Your task to perform on an android device: install app "Airtel Thanks" Image 0: 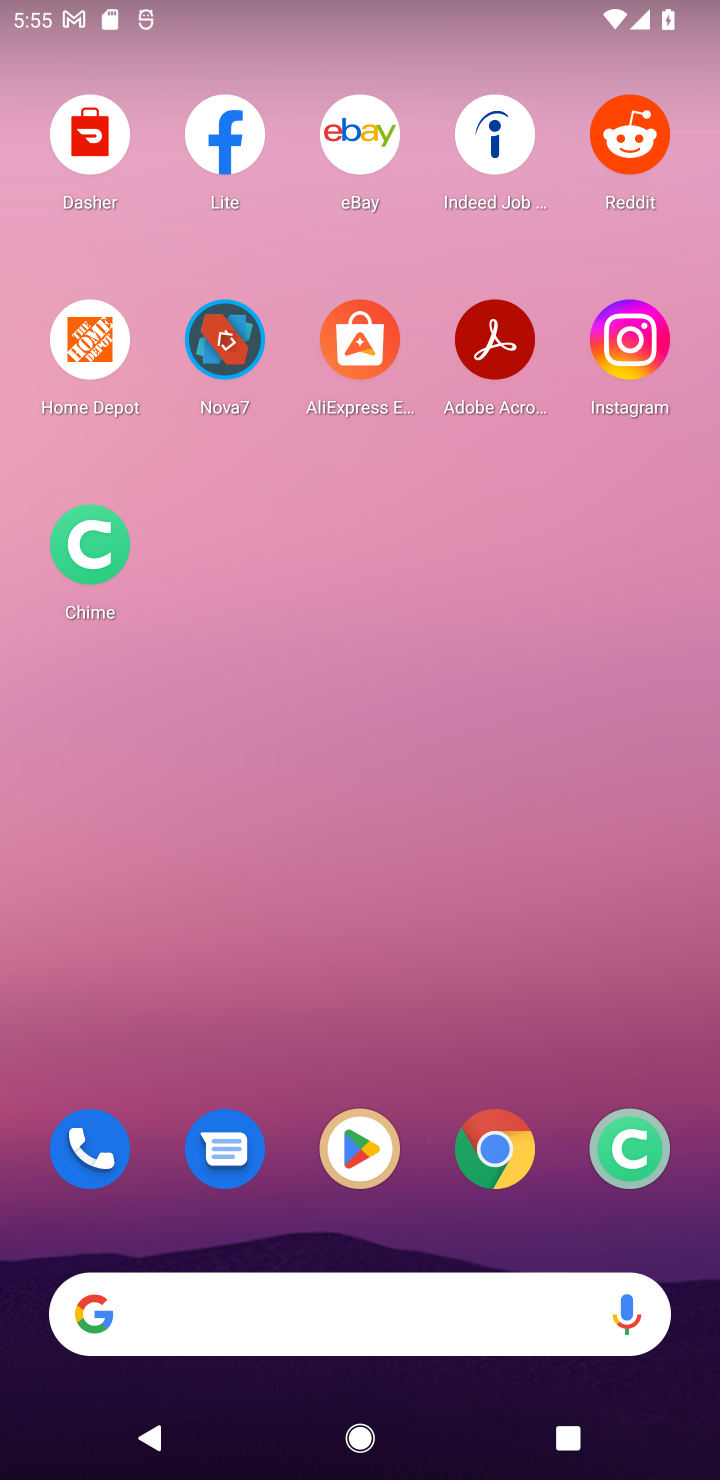
Step 0: press home button
Your task to perform on an android device: install app "Airtel Thanks" Image 1: 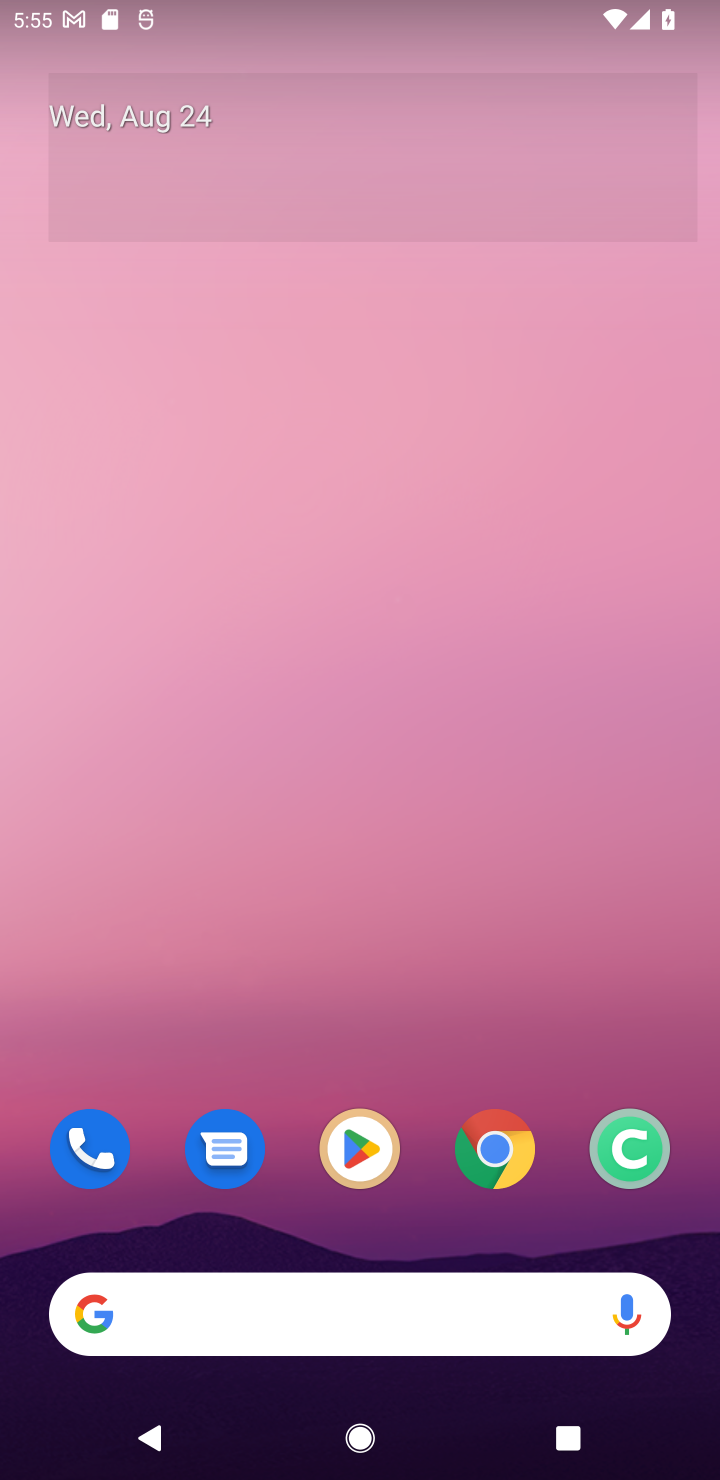
Step 1: click (352, 1149)
Your task to perform on an android device: install app "Airtel Thanks" Image 2: 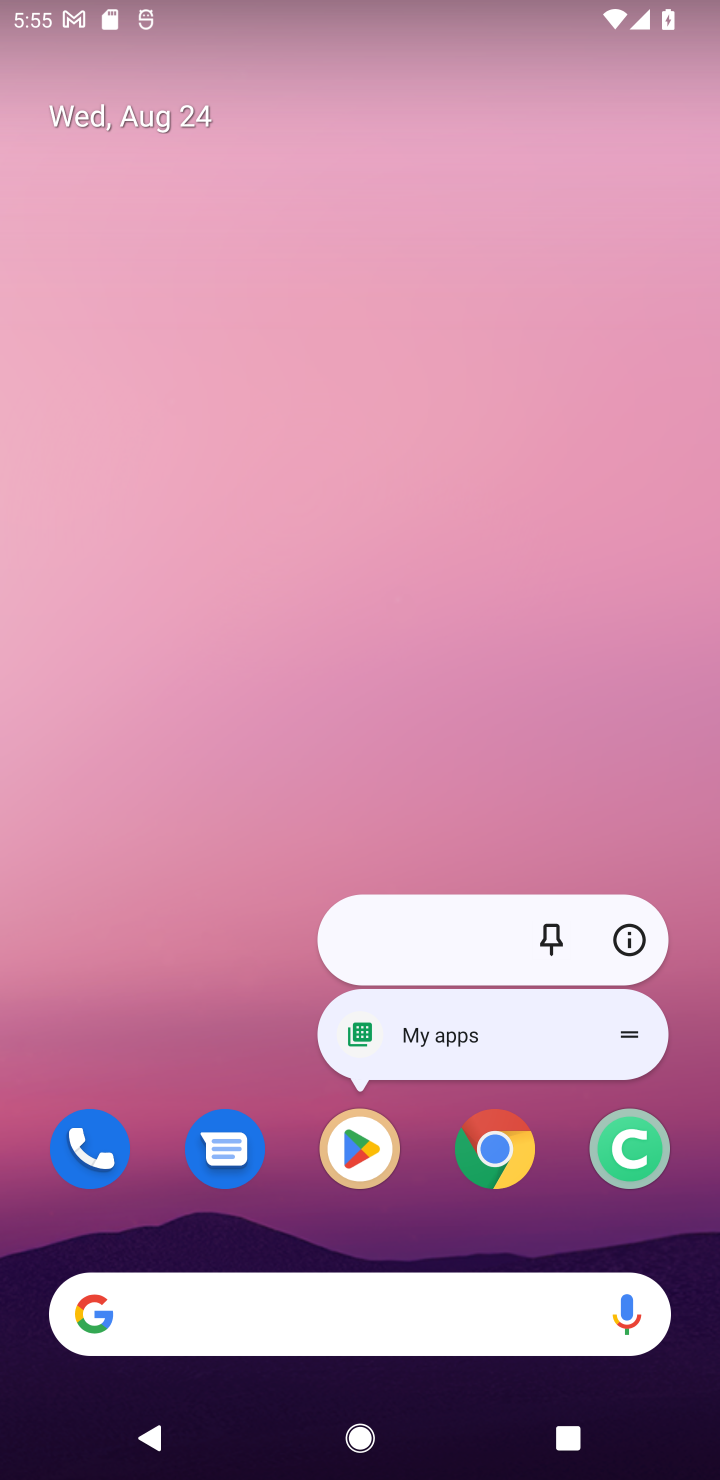
Step 2: click (352, 1151)
Your task to perform on an android device: install app "Airtel Thanks" Image 3: 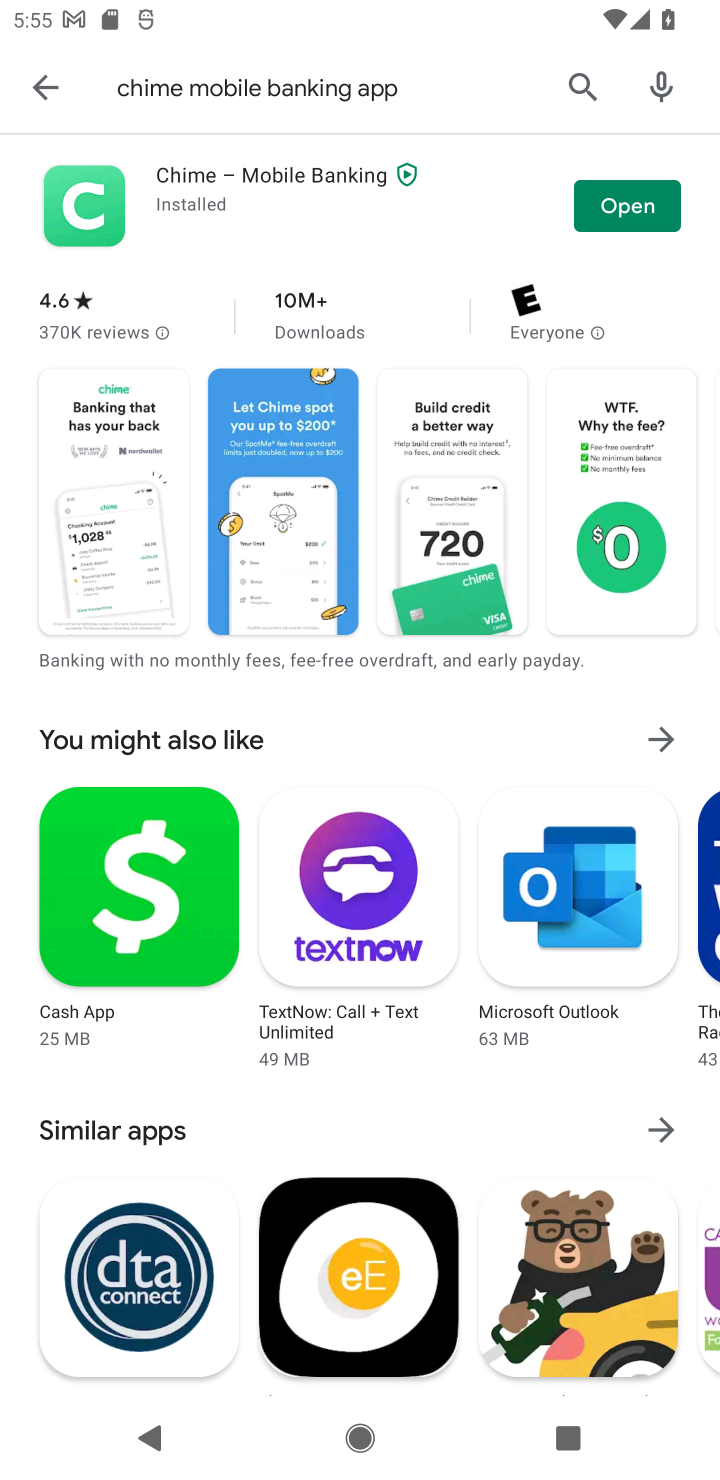
Step 3: click (568, 88)
Your task to perform on an android device: install app "Airtel Thanks" Image 4: 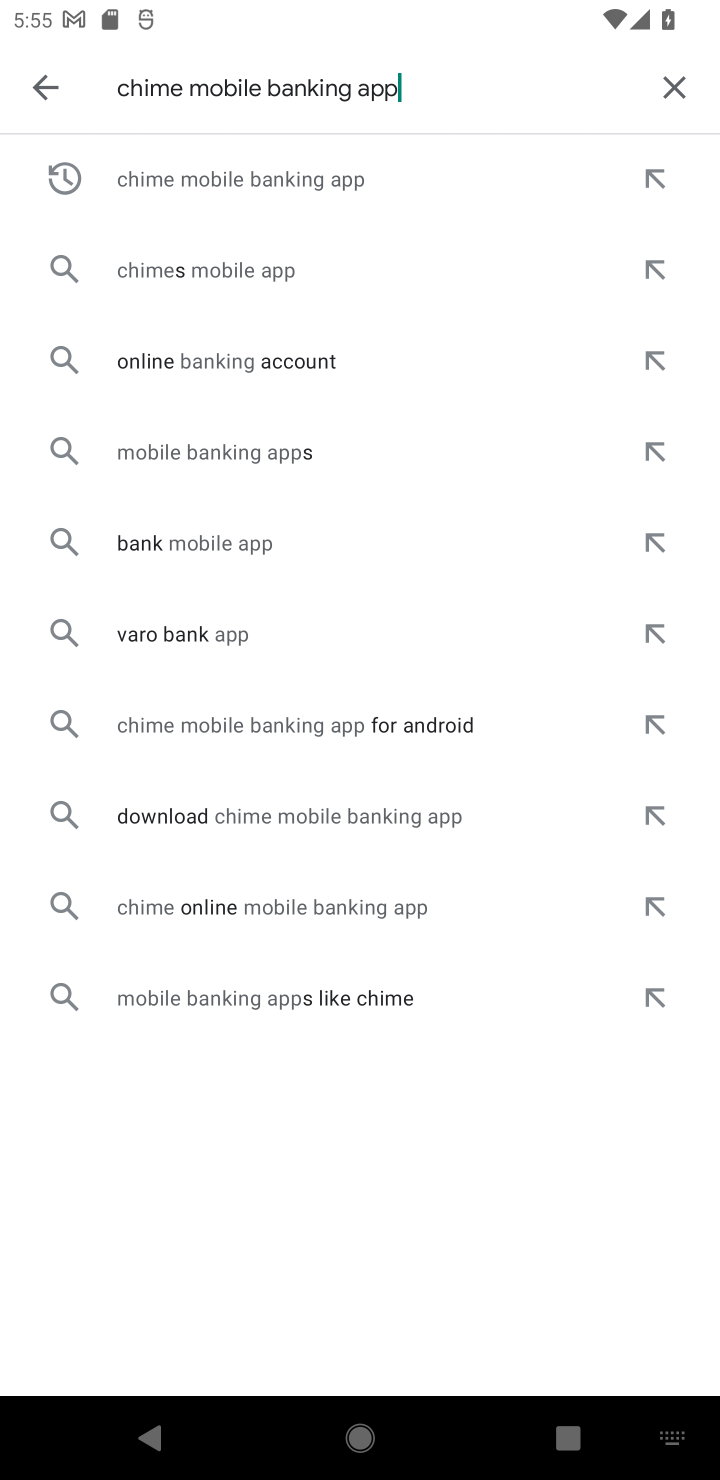
Step 4: click (667, 82)
Your task to perform on an android device: install app "Airtel Thanks" Image 5: 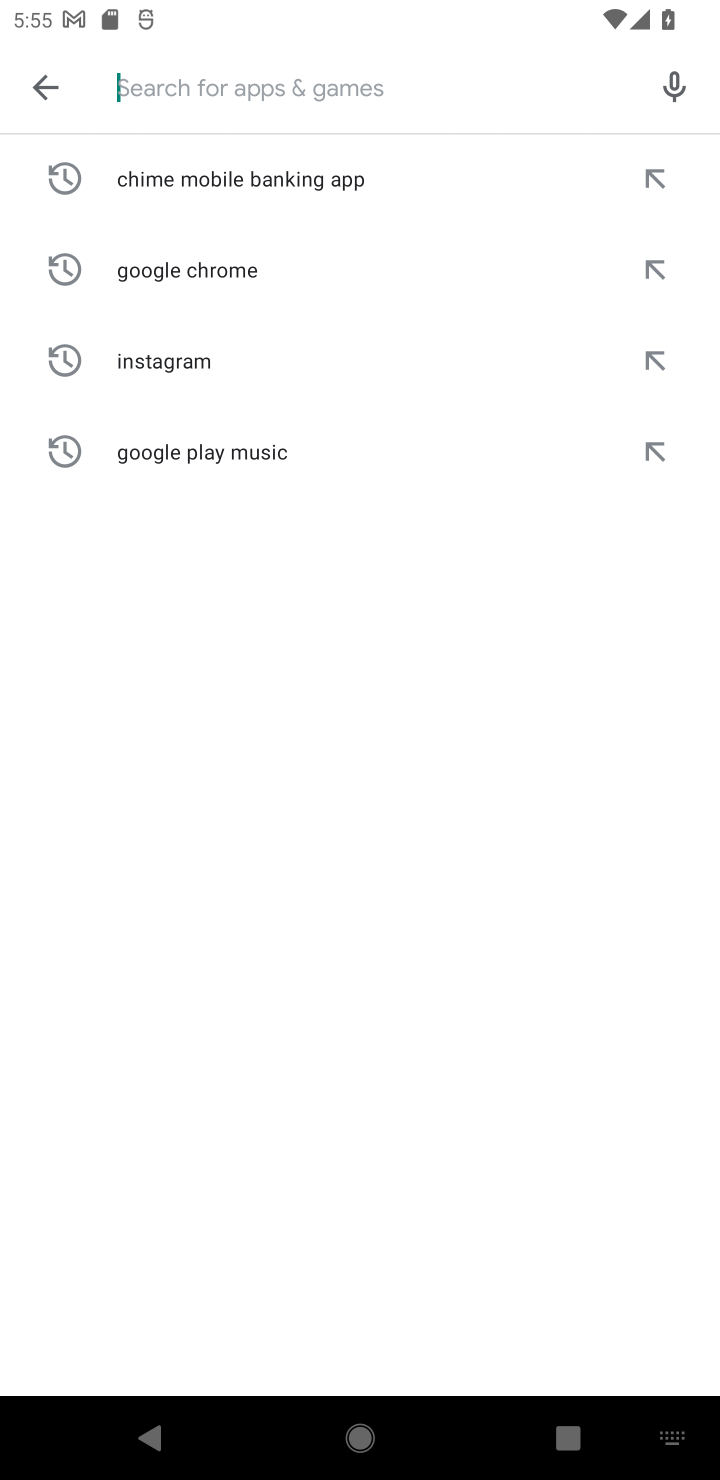
Step 5: type "Airtel Thanks"
Your task to perform on an android device: install app "Airtel Thanks" Image 6: 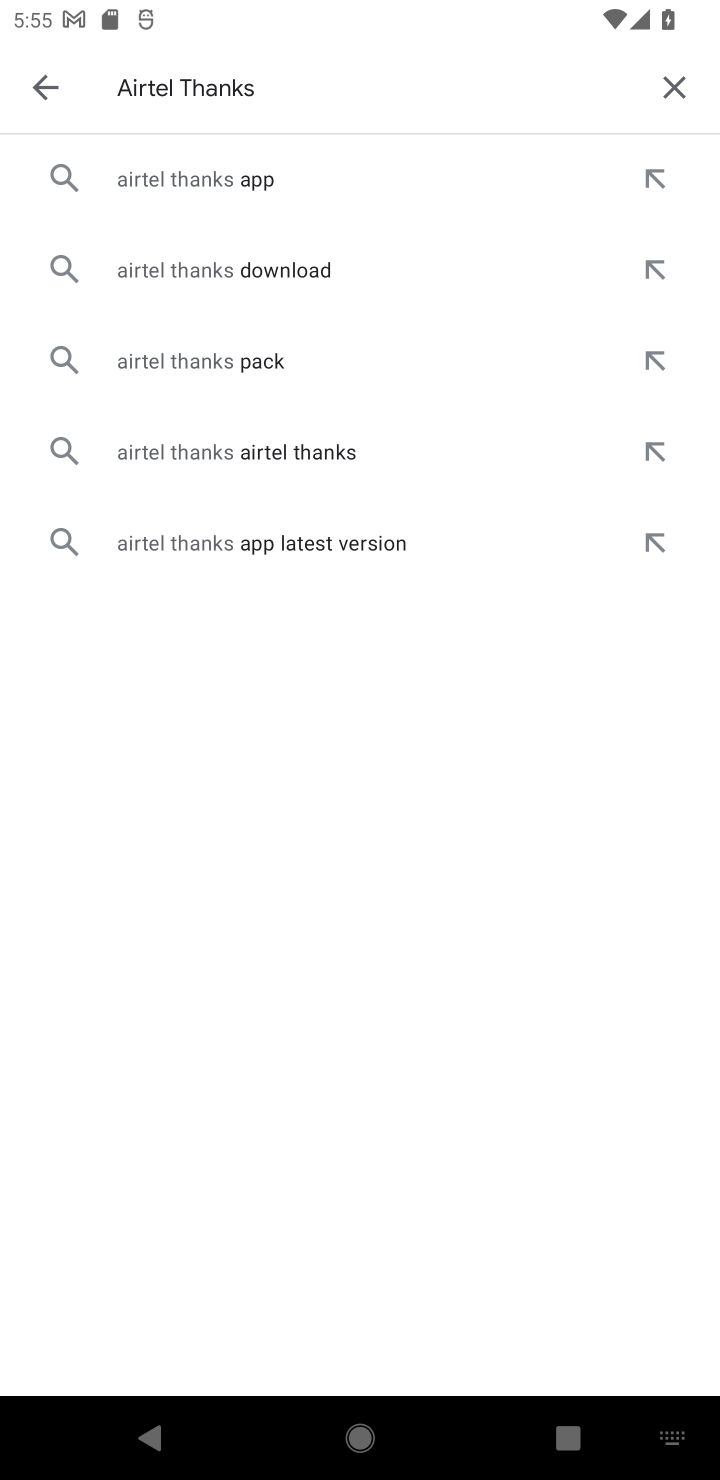
Step 6: click (249, 172)
Your task to perform on an android device: install app "Airtel Thanks" Image 7: 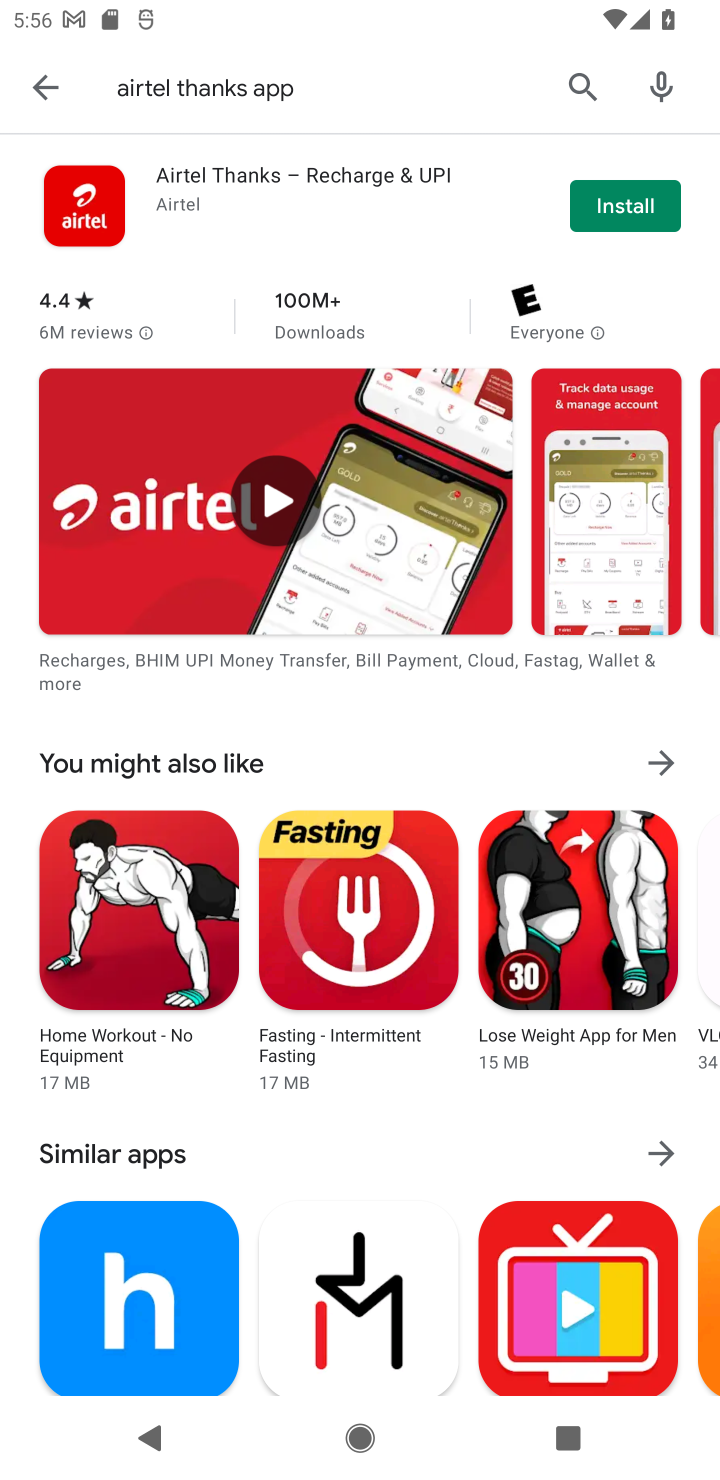
Step 7: click (632, 203)
Your task to perform on an android device: install app "Airtel Thanks" Image 8: 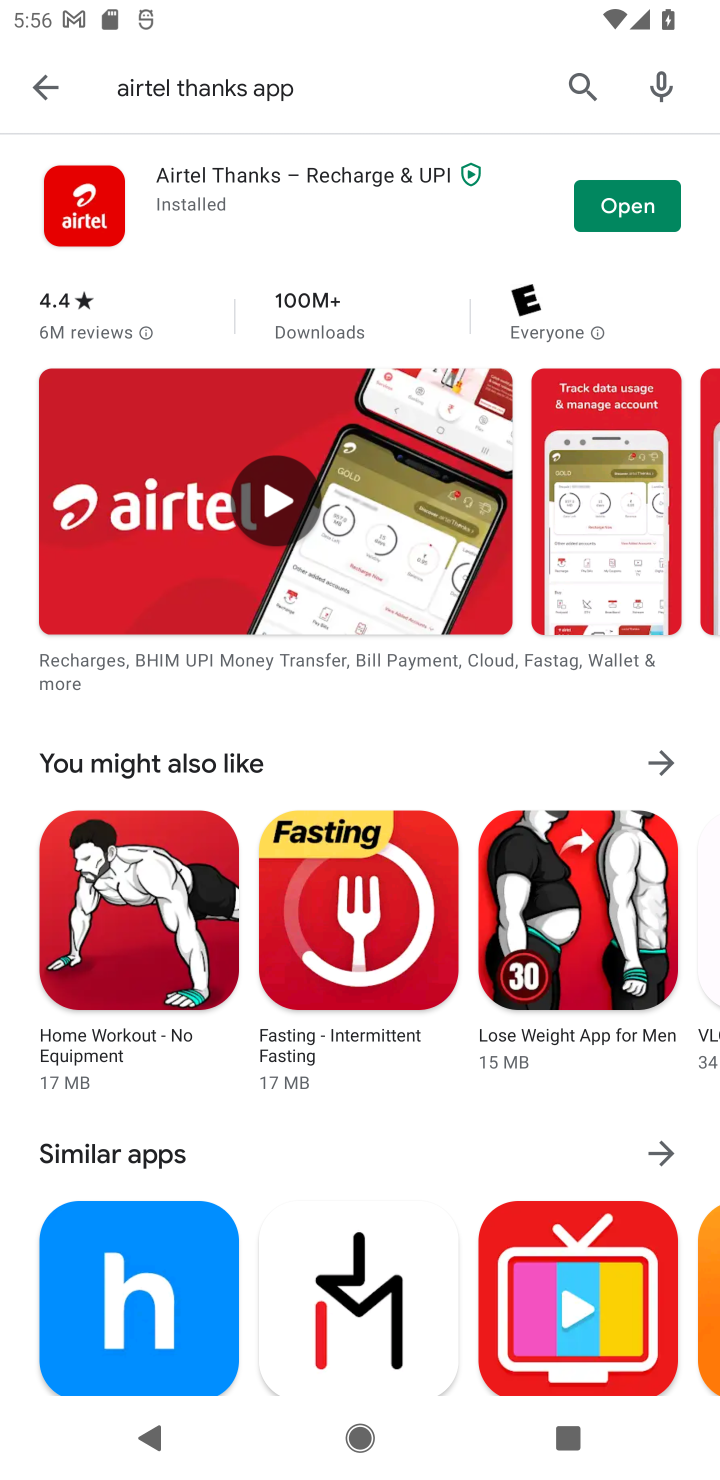
Step 8: task complete